Your task to perform on an android device: Go to location settings Image 0: 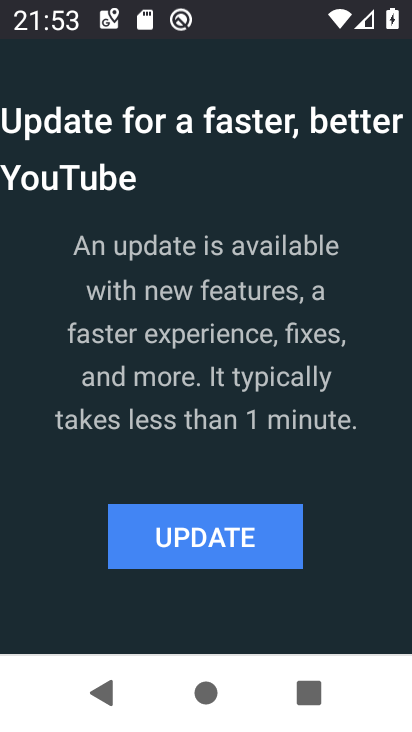
Step 0: press home button
Your task to perform on an android device: Go to location settings Image 1: 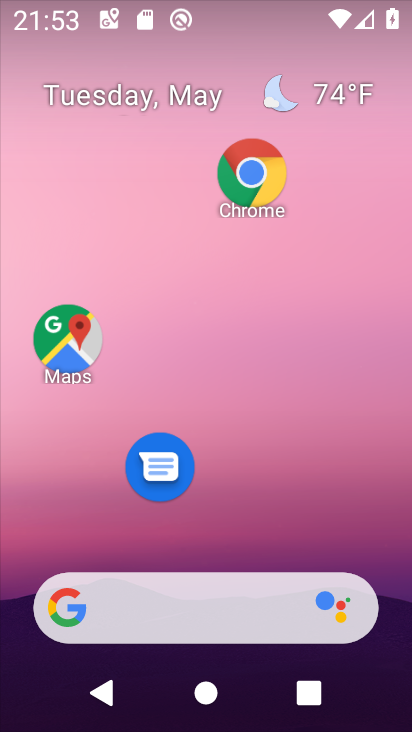
Step 1: drag from (374, 533) to (365, 106)
Your task to perform on an android device: Go to location settings Image 2: 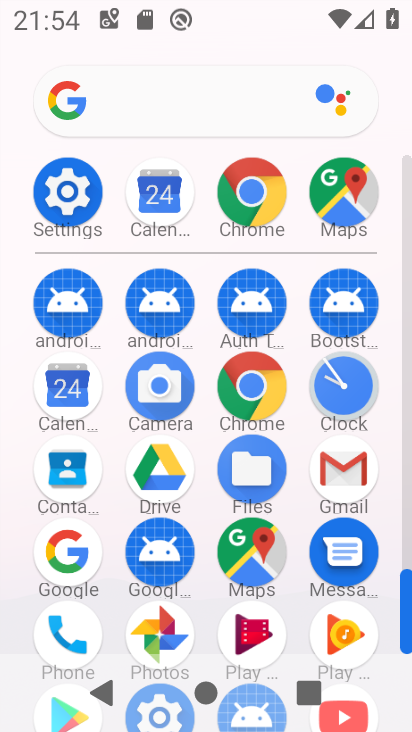
Step 2: click (55, 198)
Your task to perform on an android device: Go to location settings Image 3: 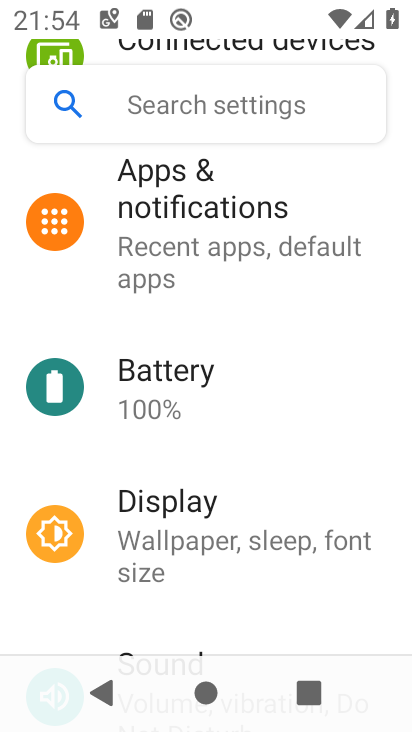
Step 3: drag from (303, 270) to (313, 492)
Your task to perform on an android device: Go to location settings Image 4: 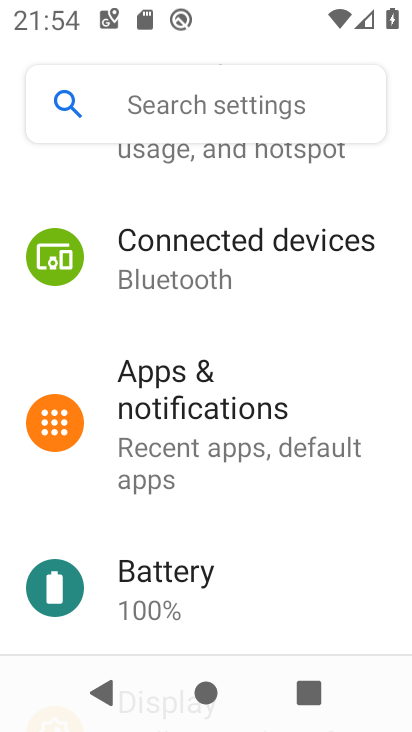
Step 4: drag from (258, 348) to (269, 589)
Your task to perform on an android device: Go to location settings Image 5: 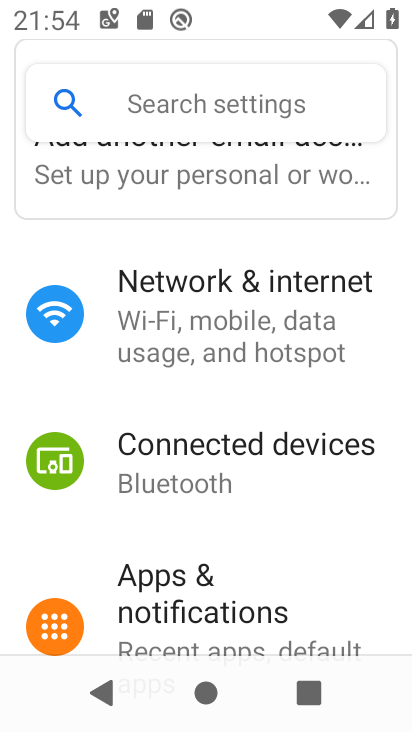
Step 5: drag from (273, 485) to (280, 160)
Your task to perform on an android device: Go to location settings Image 6: 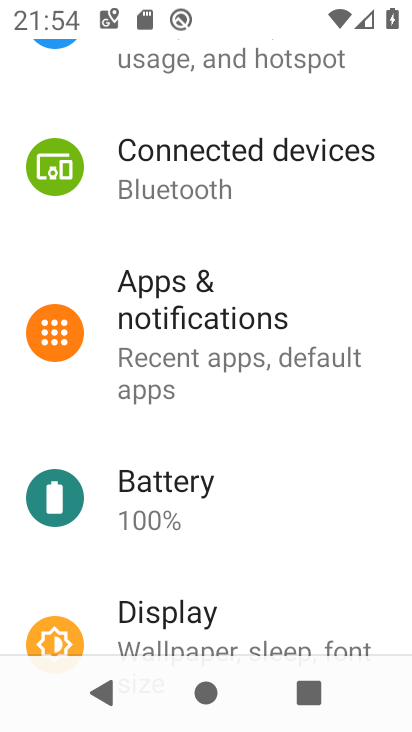
Step 6: drag from (285, 612) to (320, 274)
Your task to perform on an android device: Go to location settings Image 7: 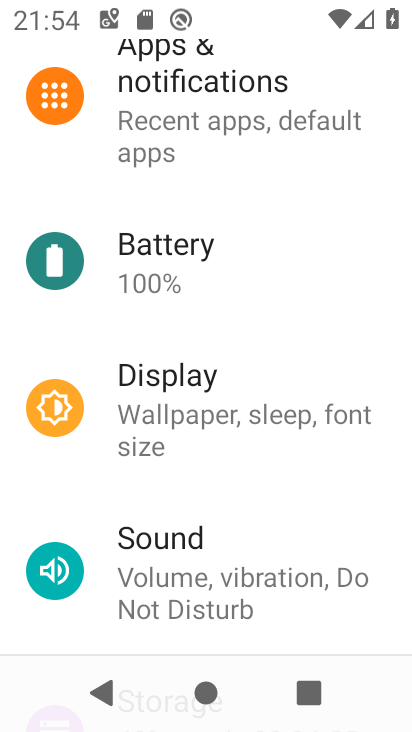
Step 7: drag from (271, 511) to (308, 210)
Your task to perform on an android device: Go to location settings Image 8: 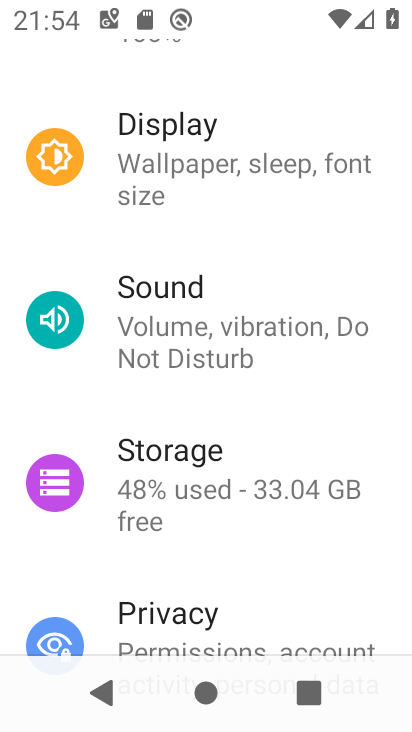
Step 8: drag from (302, 550) to (308, 139)
Your task to perform on an android device: Go to location settings Image 9: 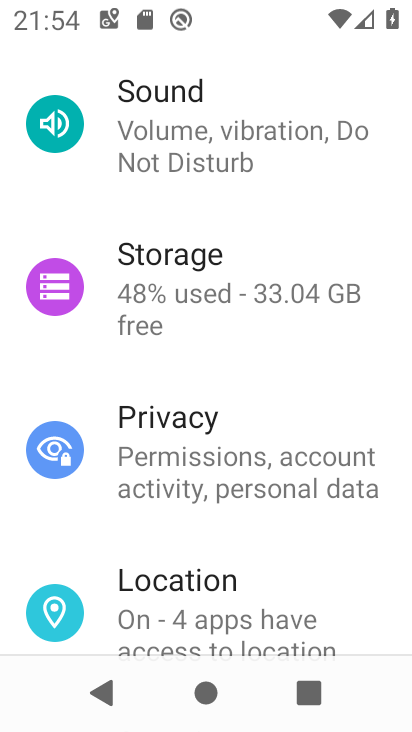
Step 9: click (273, 600)
Your task to perform on an android device: Go to location settings Image 10: 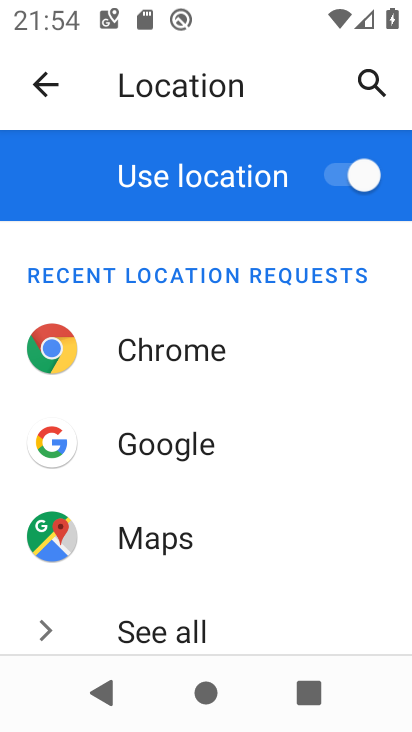
Step 10: task complete